Your task to perform on an android device: Open Youtube and go to the subscriptions tab Image 0: 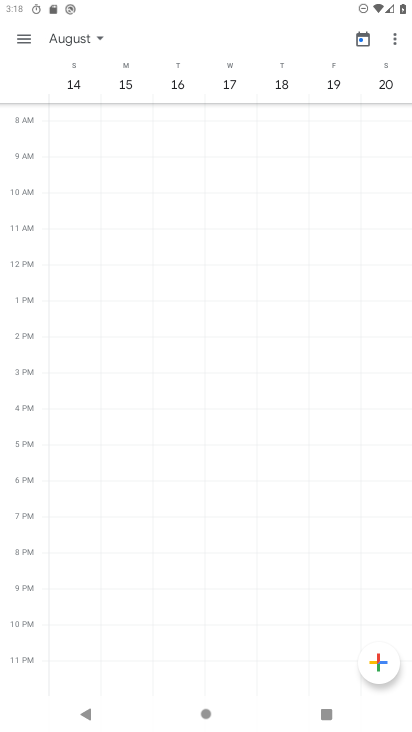
Step 0: press home button
Your task to perform on an android device: Open Youtube and go to the subscriptions tab Image 1: 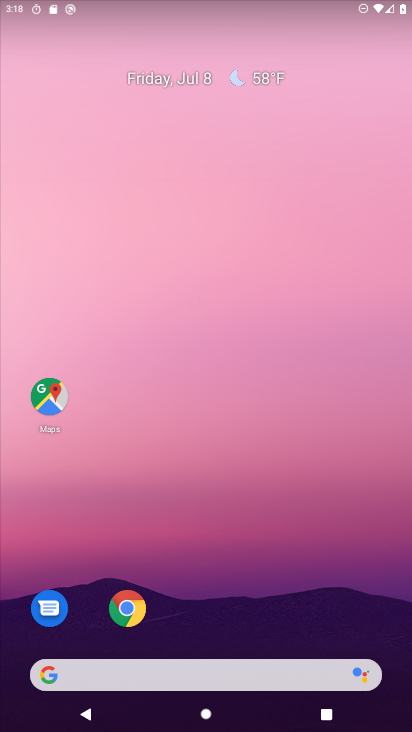
Step 1: drag from (248, 720) to (239, 99)
Your task to perform on an android device: Open Youtube and go to the subscriptions tab Image 2: 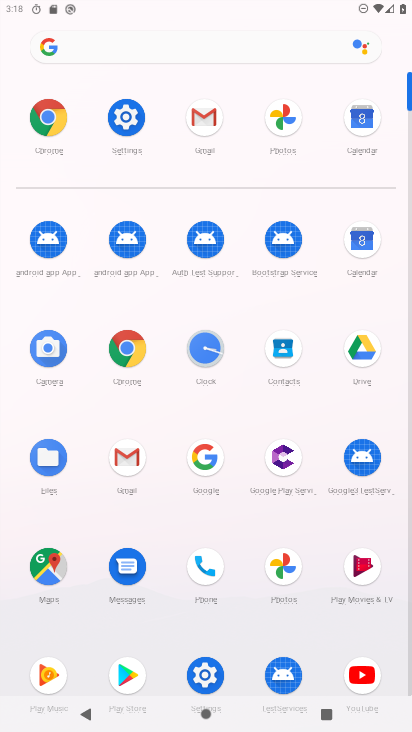
Step 2: click (364, 671)
Your task to perform on an android device: Open Youtube and go to the subscriptions tab Image 3: 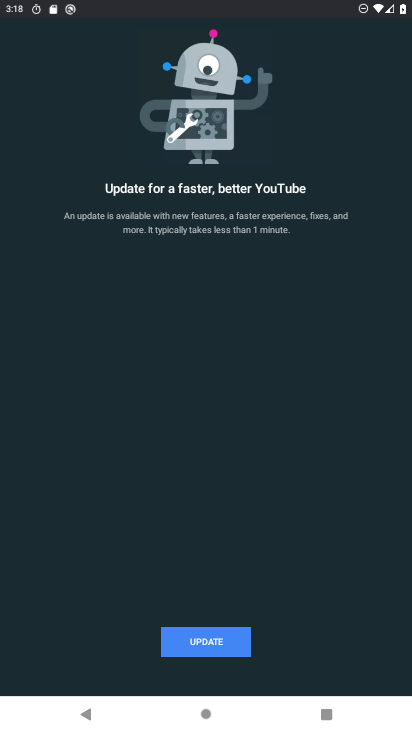
Step 3: task complete